Your task to perform on an android device: open a new tab in the chrome app Image 0: 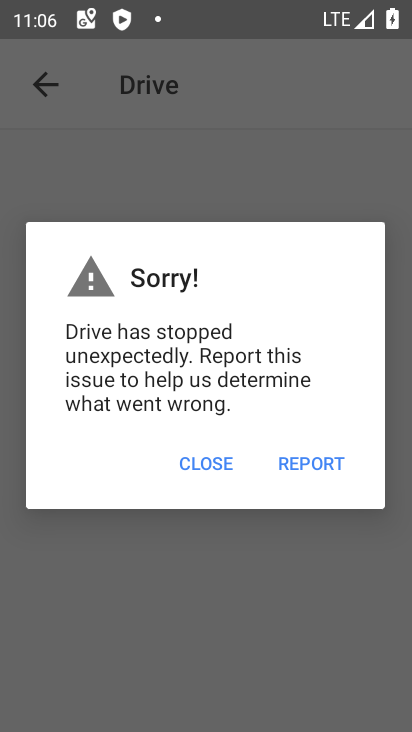
Step 0: press home button
Your task to perform on an android device: open a new tab in the chrome app Image 1: 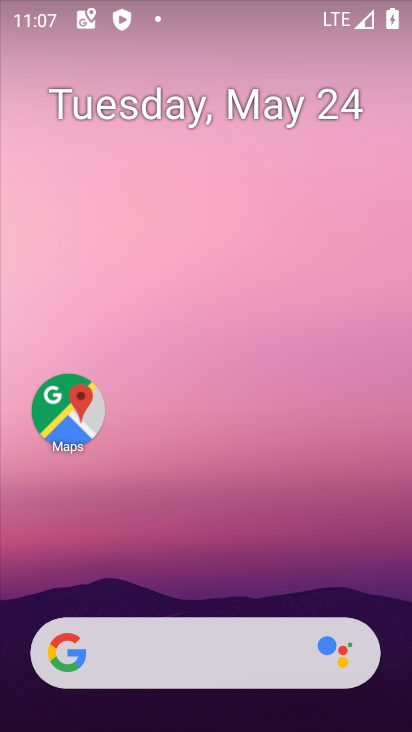
Step 1: drag from (165, 653) to (145, 236)
Your task to perform on an android device: open a new tab in the chrome app Image 2: 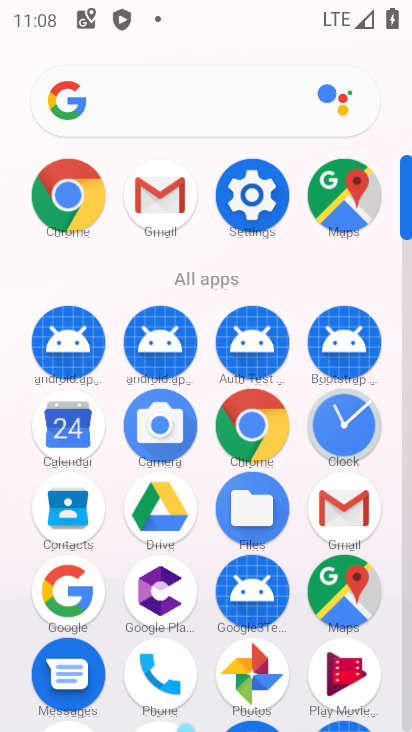
Step 2: click (73, 184)
Your task to perform on an android device: open a new tab in the chrome app Image 3: 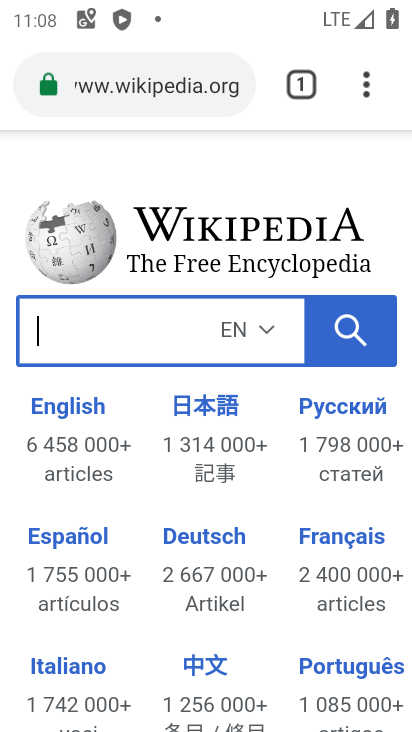
Step 3: task complete